Your task to perform on an android device: turn pop-ups on in chrome Image 0: 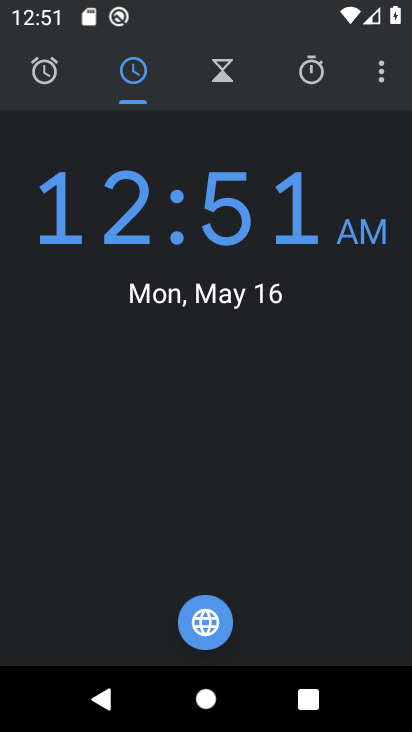
Step 0: press home button
Your task to perform on an android device: turn pop-ups on in chrome Image 1: 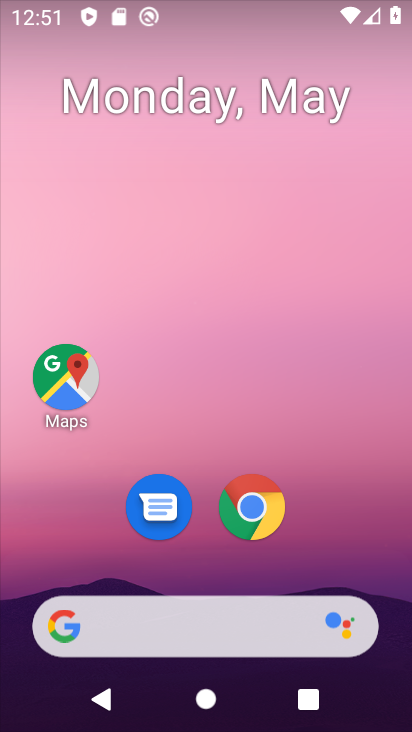
Step 1: click (266, 520)
Your task to perform on an android device: turn pop-ups on in chrome Image 2: 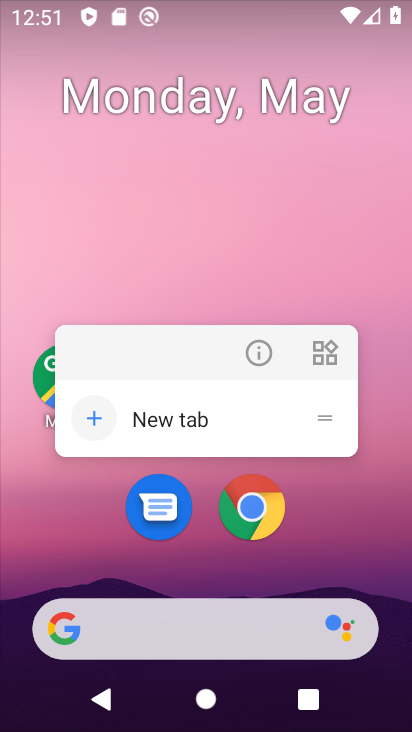
Step 2: click (244, 503)
Your task to perform on an android device: turn pop-ups on in chrome Image 3: 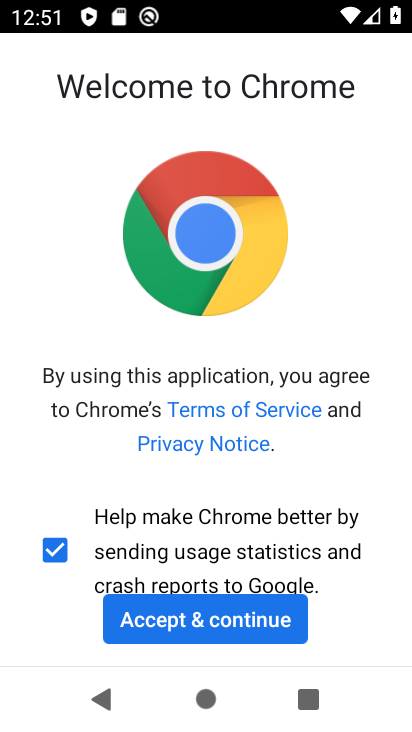
Step 3: click (273, 635)
Your task to perform on an android device: turn pop-ups on in chrome Image 4: 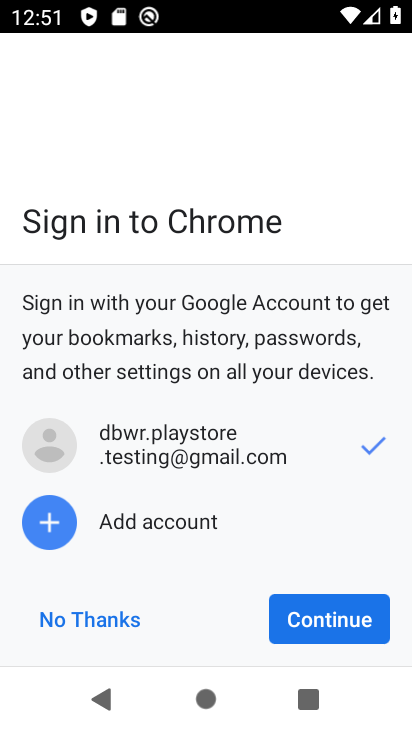
Step 4: click (356, 641)
Your task to perform on an android device: turn pop-ups on in chrome Image 5: 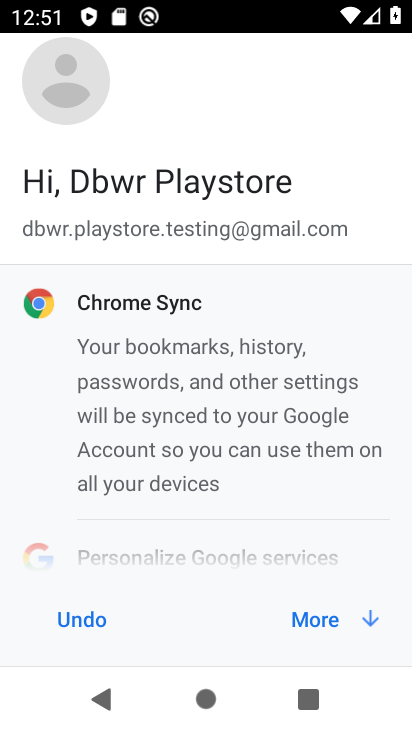
Step 5: click (335, 626)
Your task to perform on an android device: turn pop-ups on in chrome Image 6: 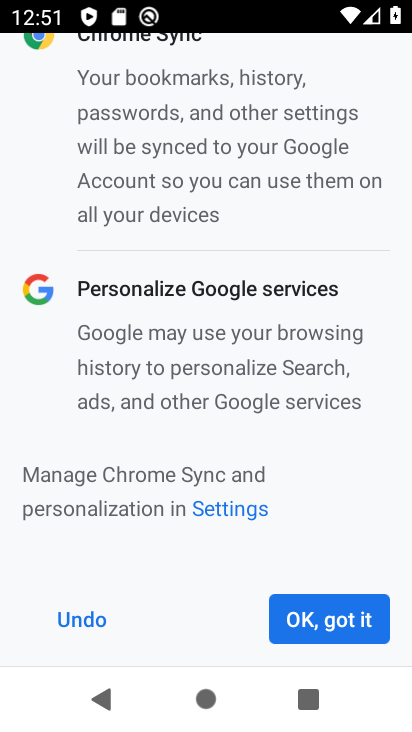
Step 6: click (322, 608)
Your task to perform on an android device: turn pop-ups on in chrome Image 7: 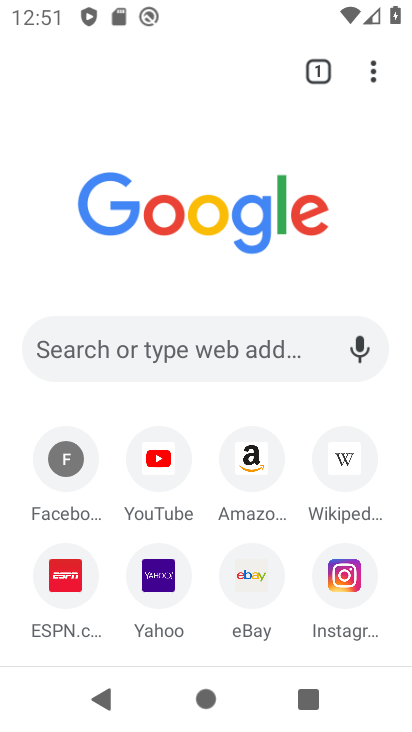
Step 7: drag from (385, 81) to (255, 508)
Your task to perform on an android device: turn pop-ups on in chrome Image 8: 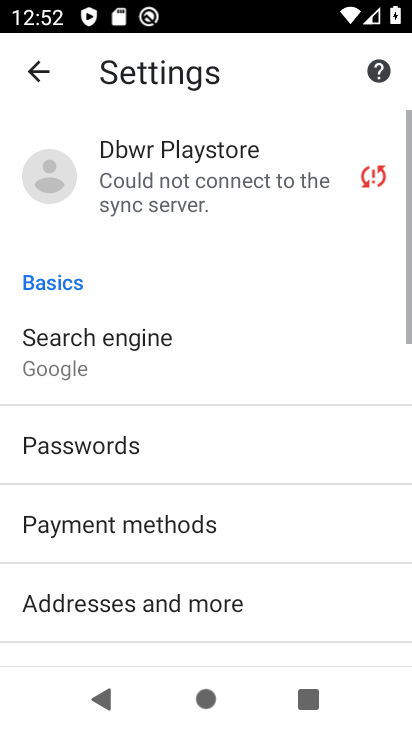
Step 8: drag from (161, 607) to (312, 210)
Your task to perform on an android device: turn pop-ups on in chrome Image 9: 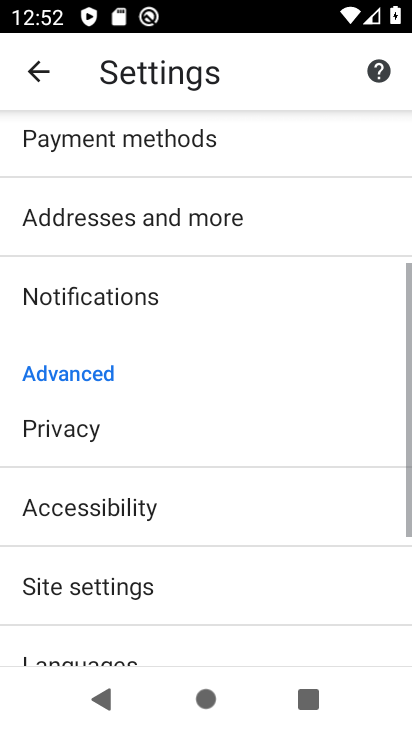
Step 9: drag from (152, 593) to (238, 304)
Your task to perform on an android device: turn pop-ups on in chrome Image 10: 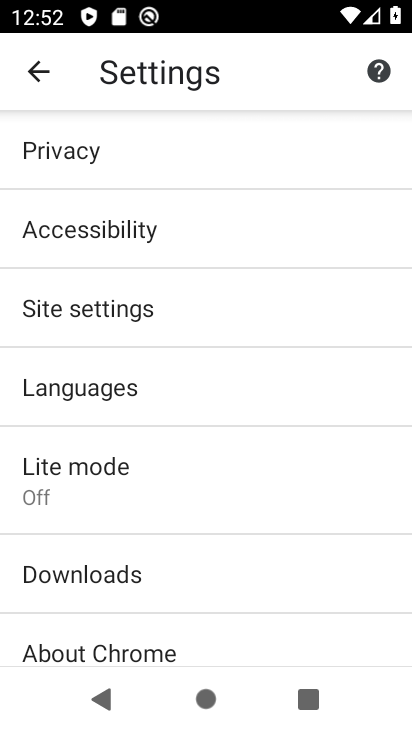
Step 10: click (204, 339)
Your task to perform on an android device: turn pop-ups on in chrome Image 11: 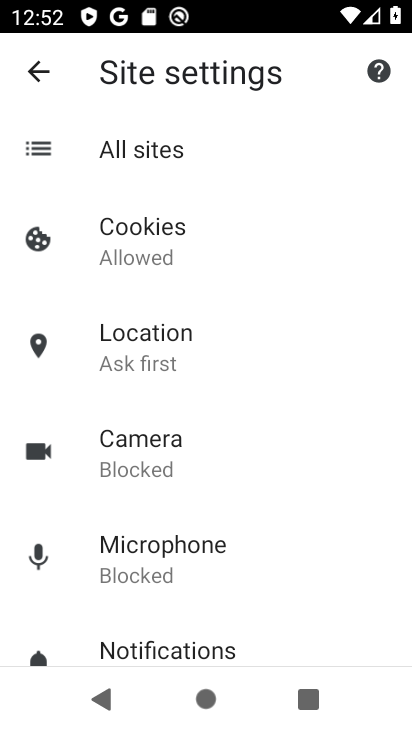
Step 11: drag from (192, 553) to (233, 271)
Your task to perform on an android device: turn pop-ups on in chrome Image 12: 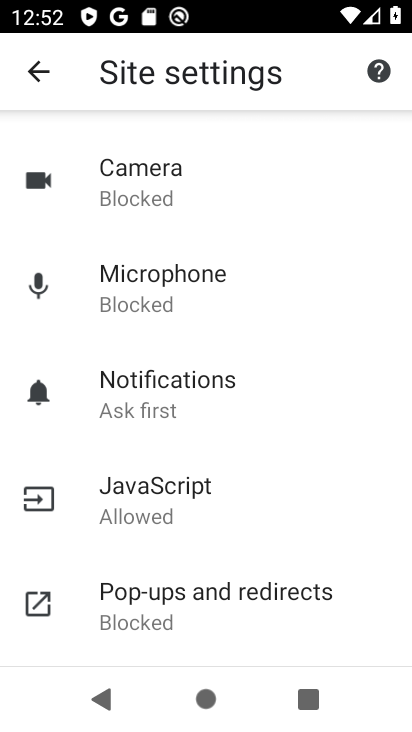
Step 12: drag from (193, 562) to (246, 366)
Your task to perform on an android device: turn pop-ups on in chrome Image 13: 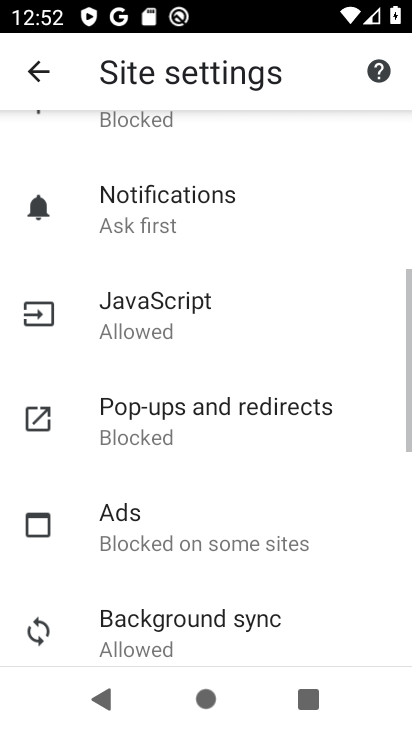
Step 13: click (198, 426)
Your task to perform on an android device: turn pop-ups on in chrome Image 14: 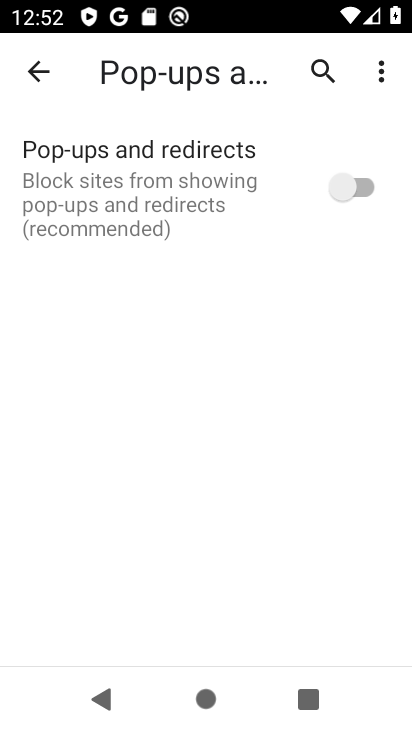
Step 14: click (380, 190)
Your task to perform on an android device: turn pop-ups on in chrome Image 15: 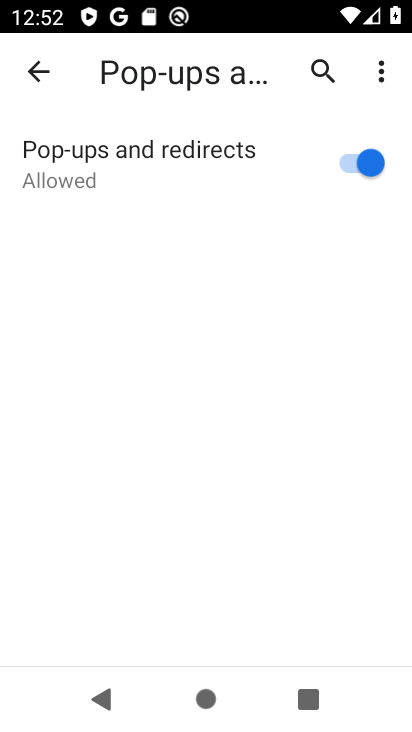
Step 15: task complete